Your task to perform on an android device: What's on my calendar tomorrow? Image 0: 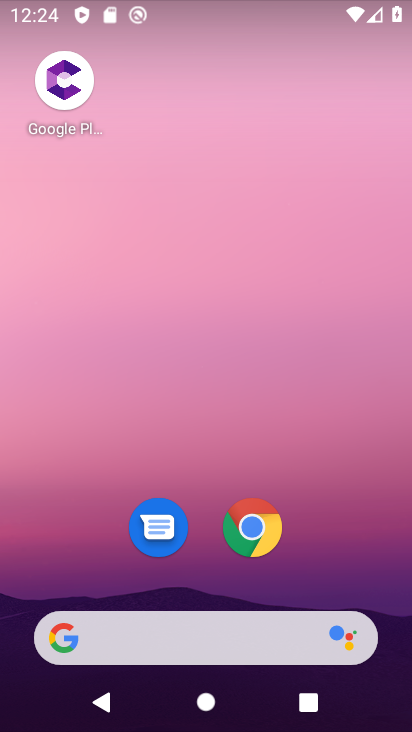
Step 0: drag from (205, 639) to (350, 120)
Your task to perform on an android device: What's on my calendar tomorrow? Image 1: 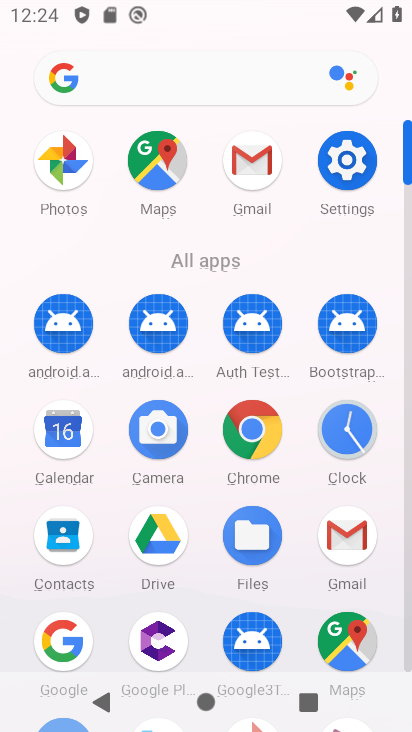
Step 1: click (61, 448)
Your task to perform on an android device: What's on my calendar tomorrow? Image 2: 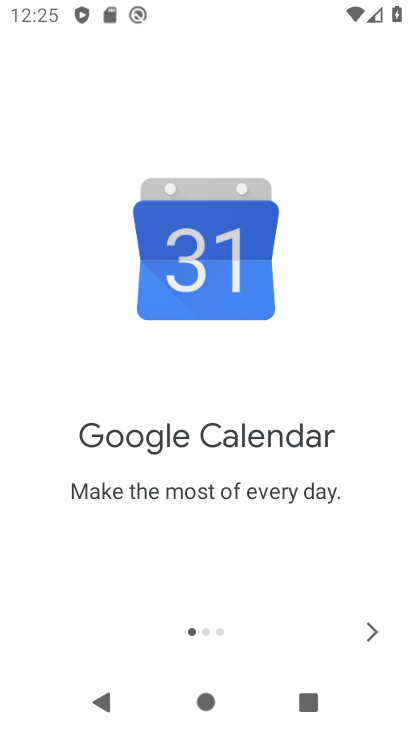
Step 2: click (374, 631)
Your task to perform on an android device: What's on my calendar tomorrow? Image 3: 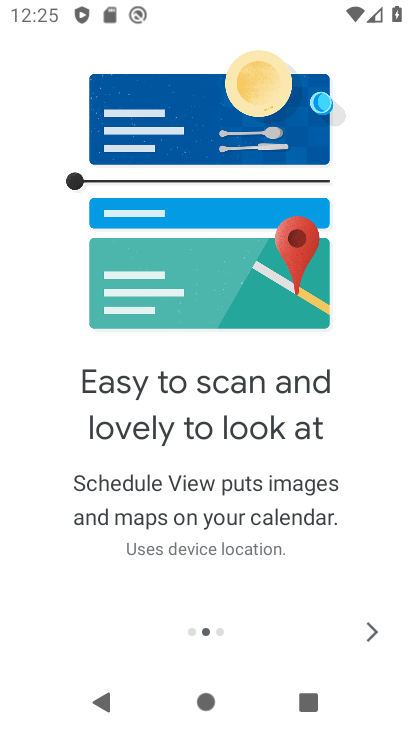
Step 3: click (374, 631)
Your task to perform on an android device: What's on my calendar tomorrow? Image 4: 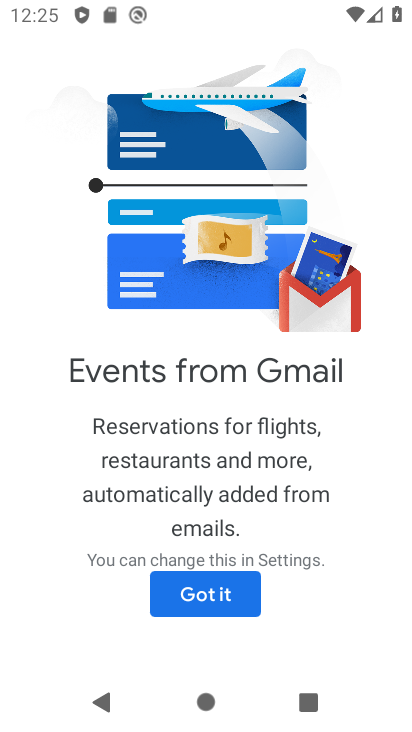
Step 4: click (230, 597)
Your task to perform on an android device: What's on my calendar tomorrow? Image 5: 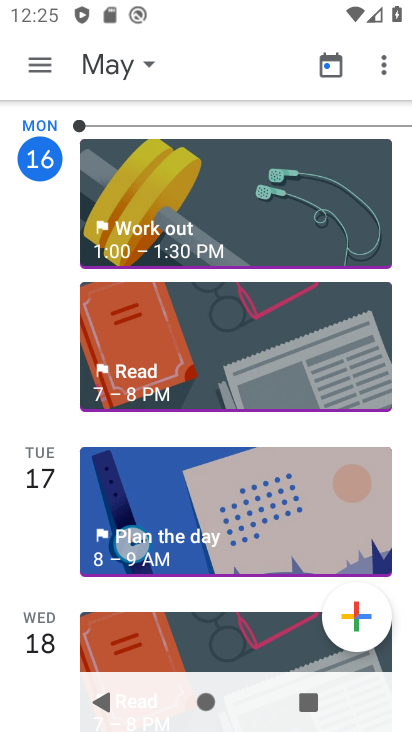
Step 5: click (109, 62)
Your task to perform on an android device: What's on my calendar tomorrow? Image 6: 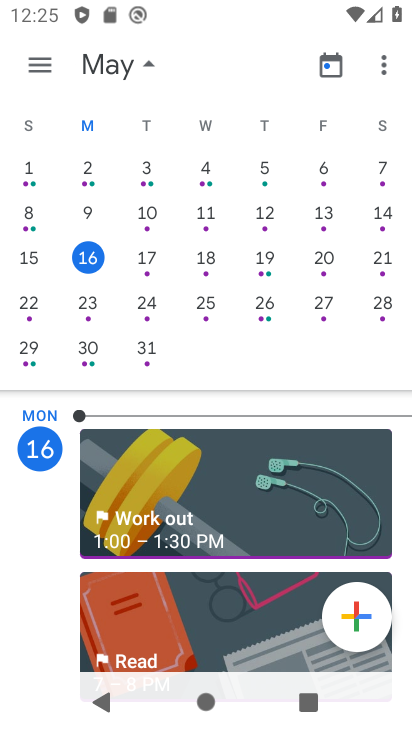
Step 6: click (148, 255)
Your task to perform on an android device: What's on my calendar tomorrow? Image 7: 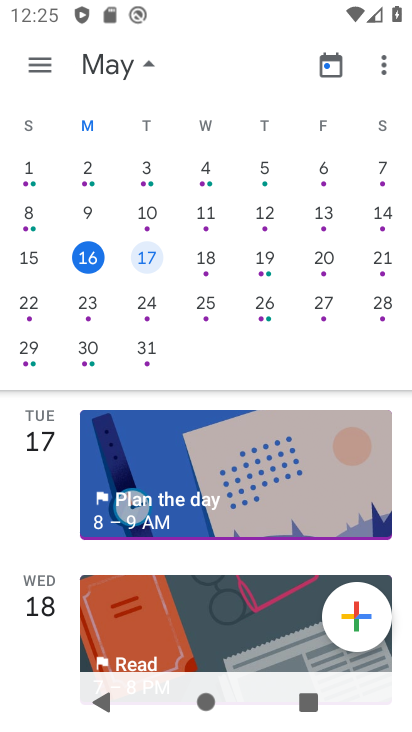
Step 7: click (38, 63)
Your task to perform on an android device: What's on my calendar tomorrow? Image 8: 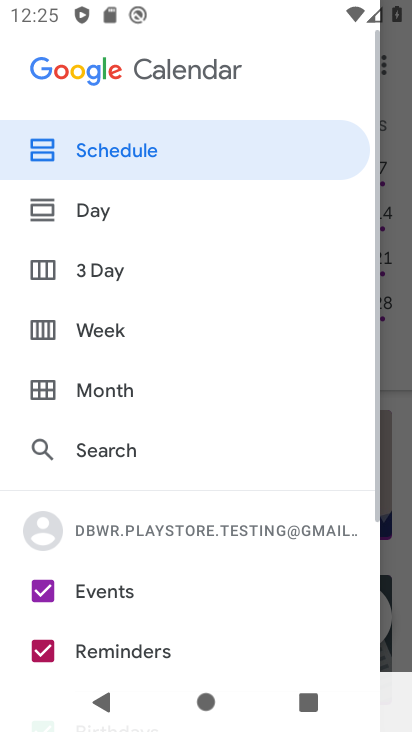
Step 8: click (125, 154)
Your task to perform on an android device: What's on my calendar tomorrow? Image 9: 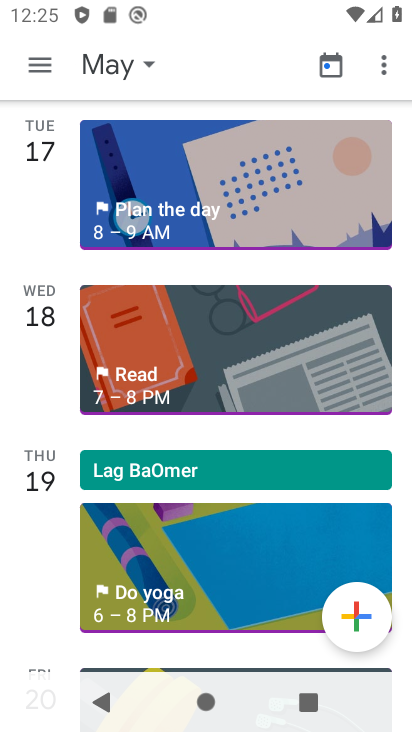
Step 9: click (162, 189)
Your task to perform on an android device: What's on my calendar tomorrow? Image 10: 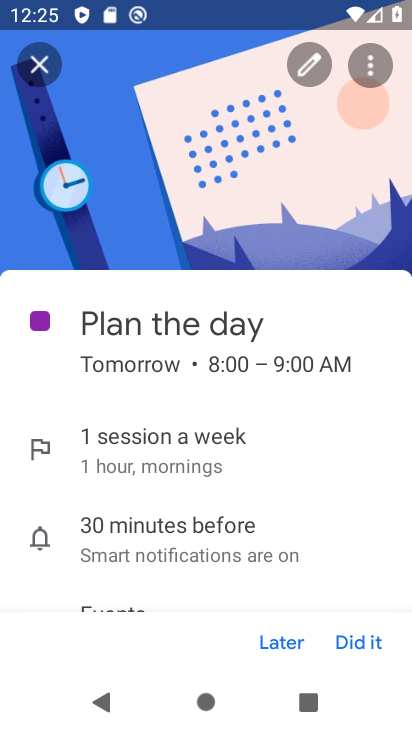
Step 10: task complete